Your task to perform on an android device: open app "PUBG MOBILE" (install if not already installed) Image 0: 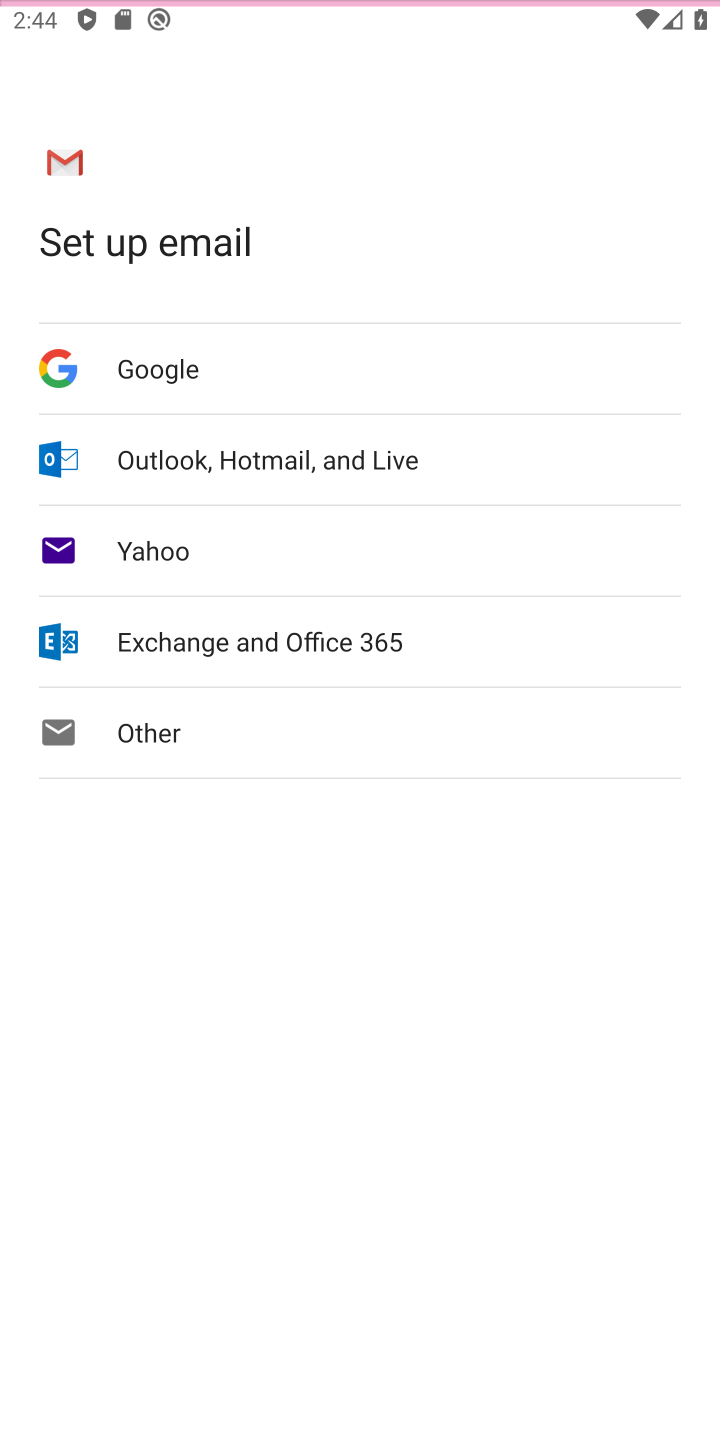
Step 0: press home button
Your task to perform on an android device: open app "PUBG MOBILE" (install if not already installed) Image 1: 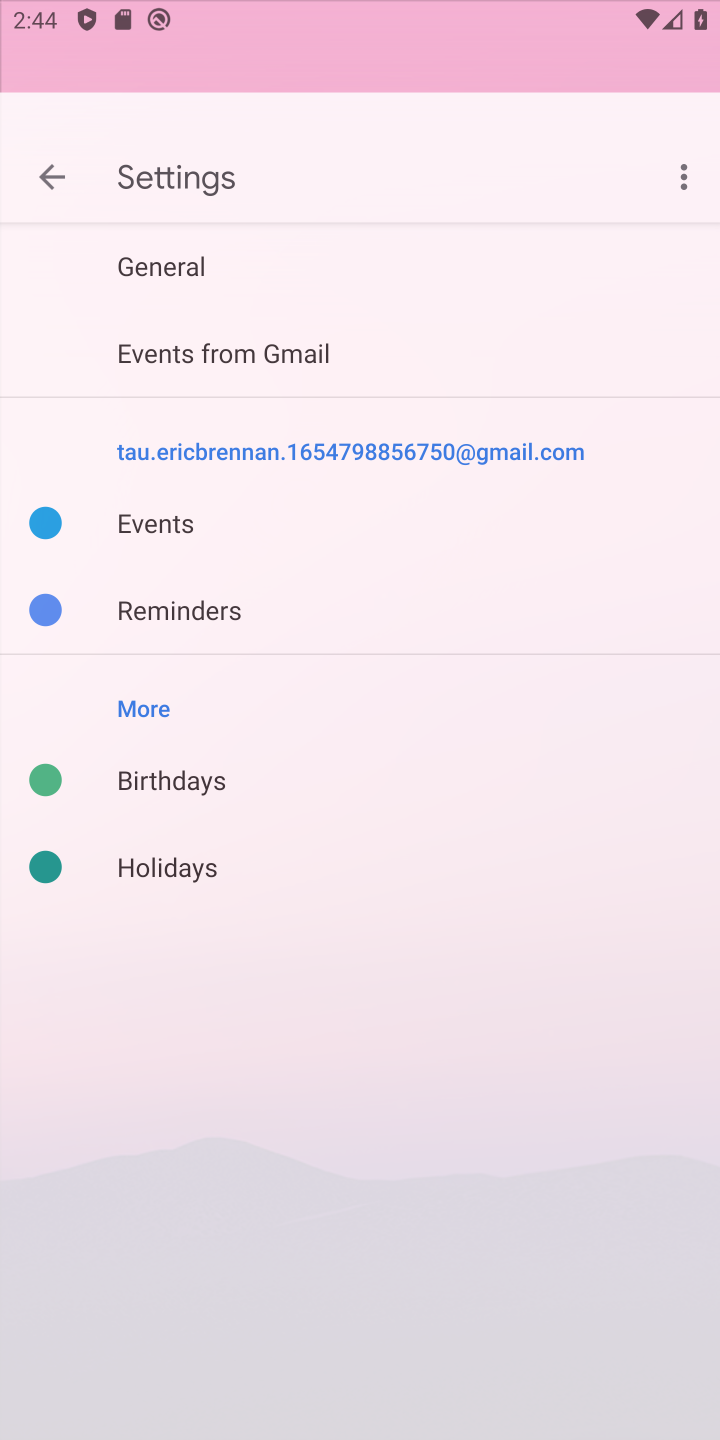
Step 1: press home button
Your task to perform on an android device: open app "PUBG MOBILE" (install if not already installed) Image 2: 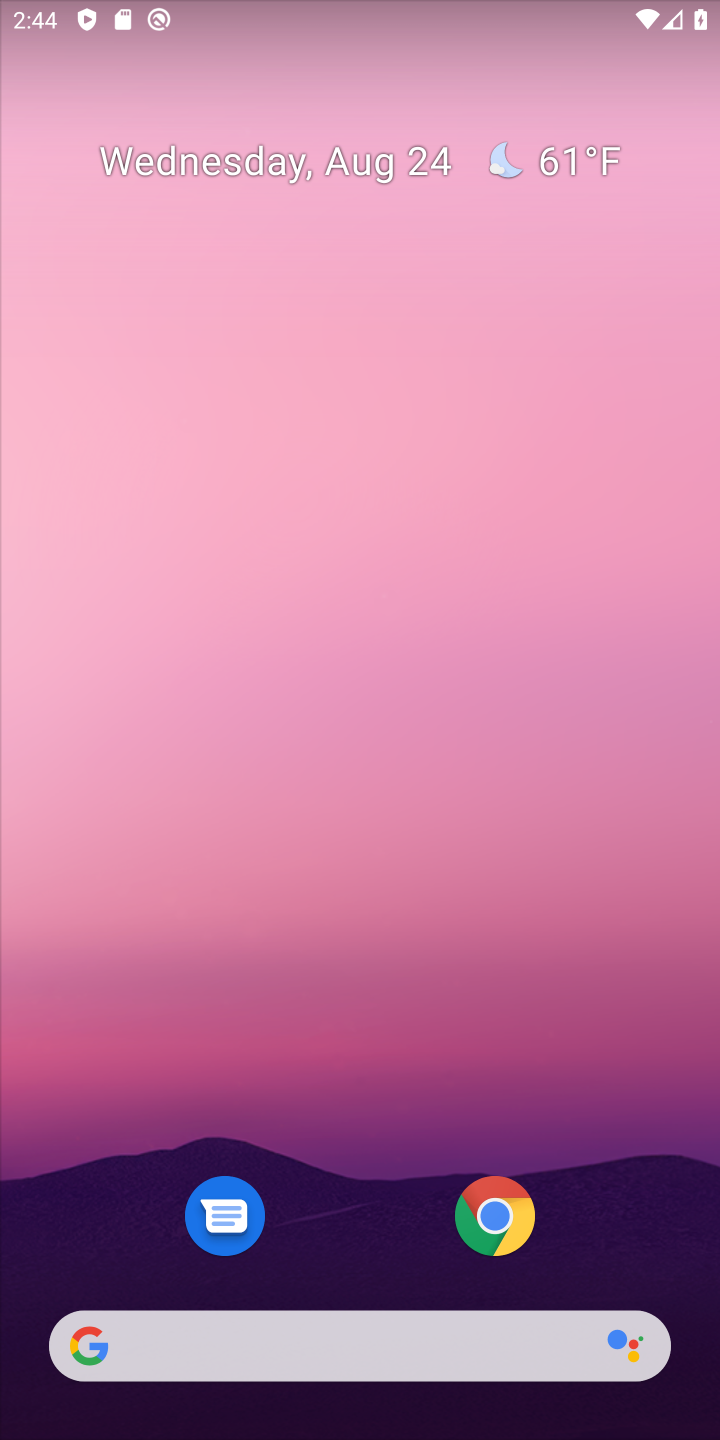
Step 2: drag from (657, 947) to (598, 69)
Your task to perform on an android device: open app "PUBG MOBILE" (install if not already installed) Image 3: 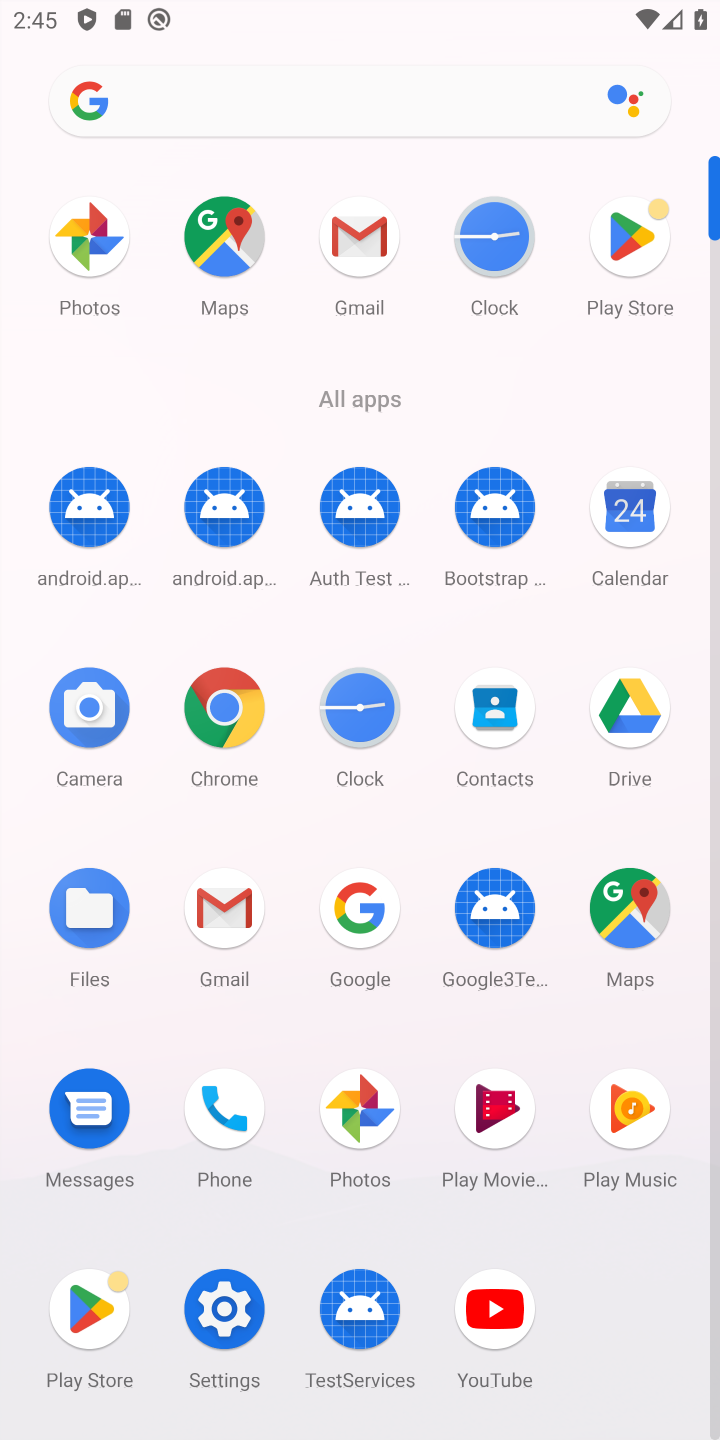
Step 3: click (623, 241)
Your task to perform on an android device: open app "PUBG MOBILE" (install if not already installed) Image 4: 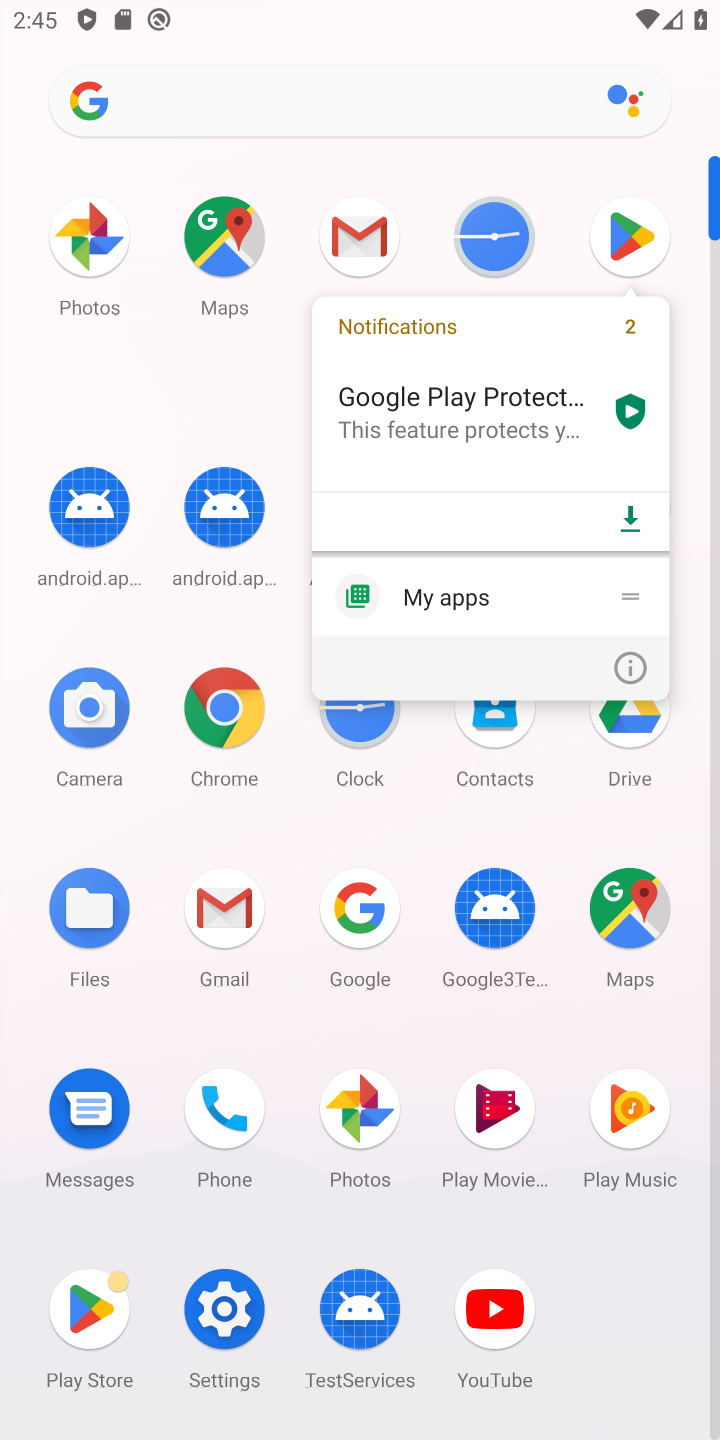
Step 4: click (604, 223)
Your task to perform on an android device: open app "PUBG MOBILE" (install if not already installed) Image 5: 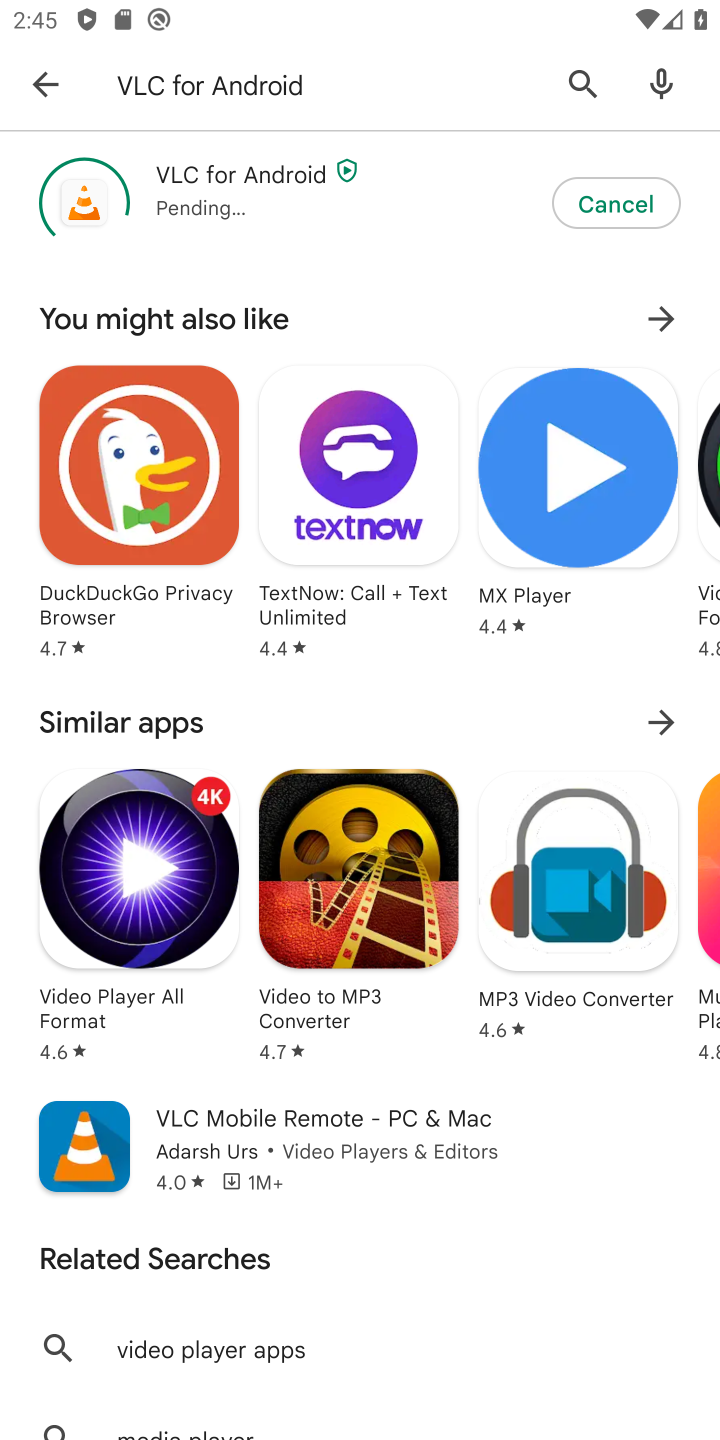
Step 5: press back button
Your task to perform on an android device: open app "PUBG MOBILE" (install if not already installed) Image 6: 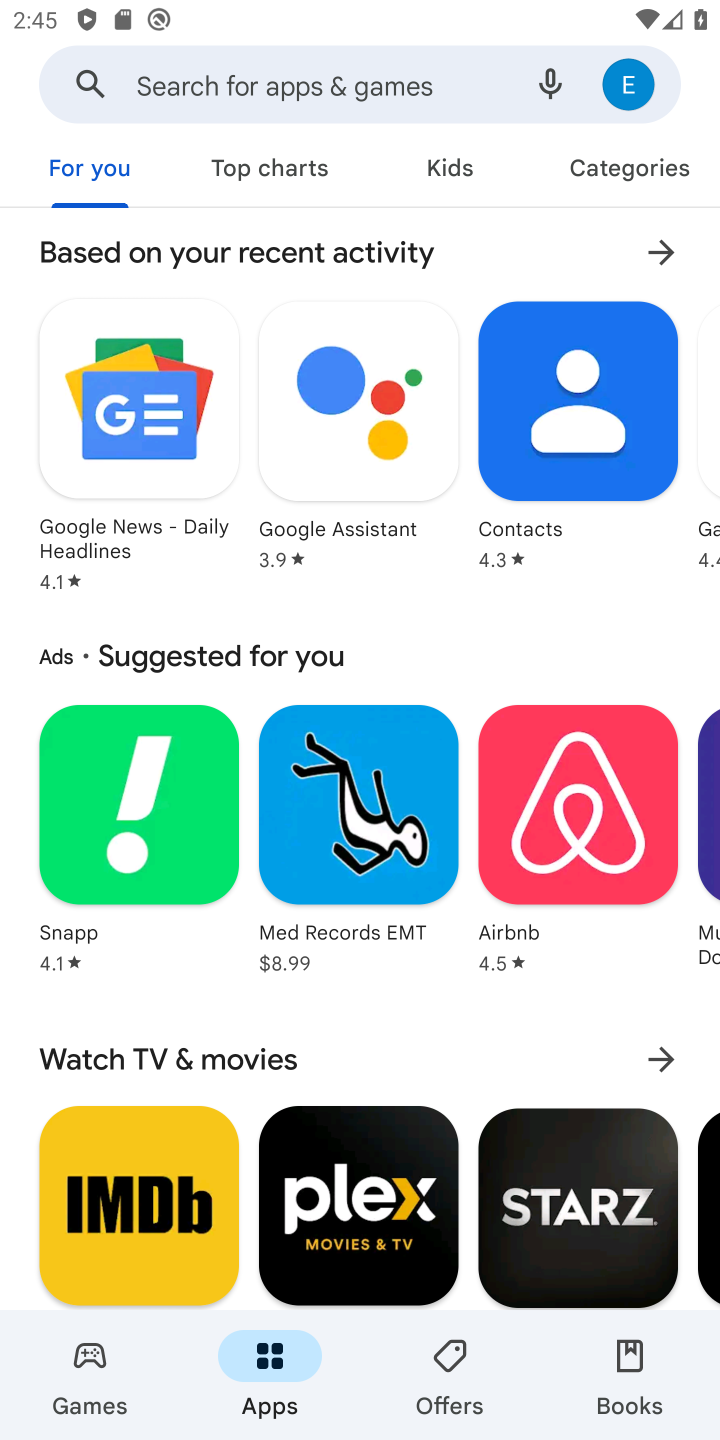
Step 6: click (356, 76)
Your task to perform on an android device: open app "PUBG MOBILE" (install if not already installed) Image 7: 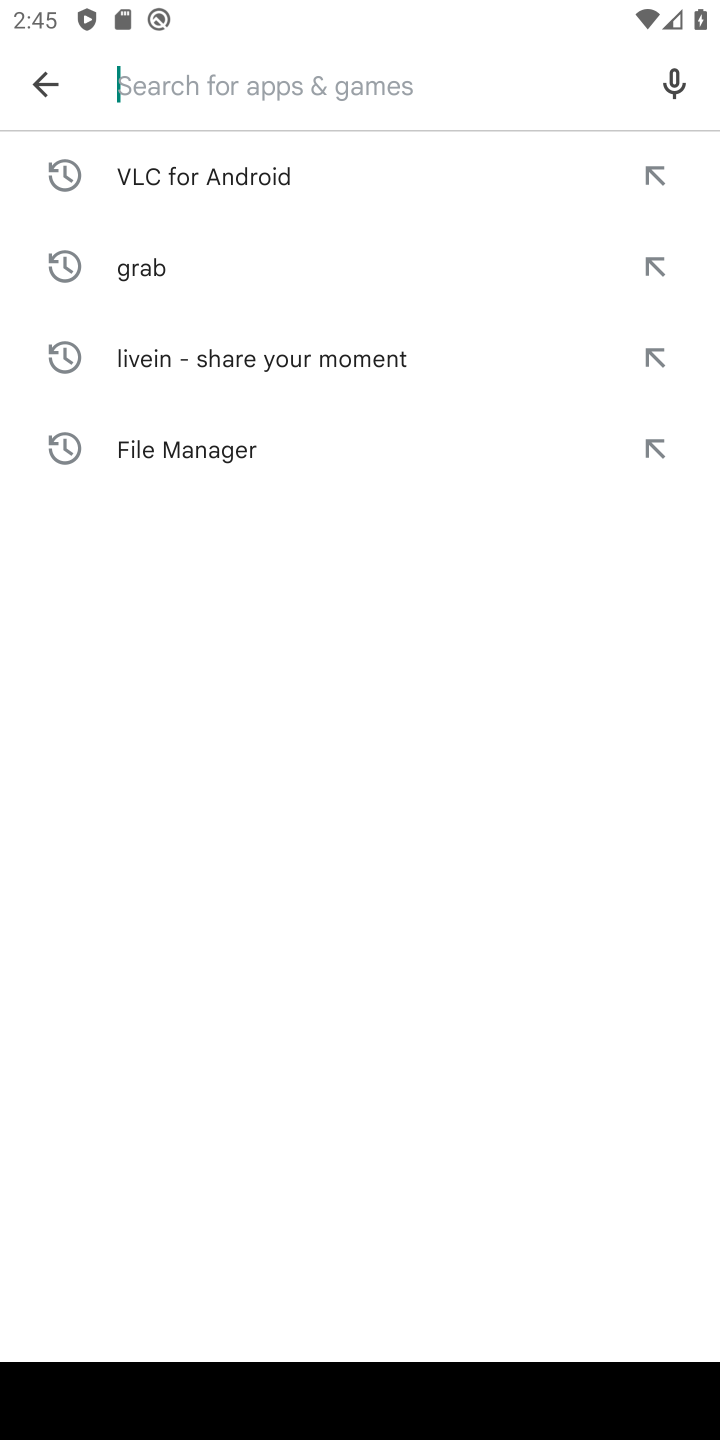
Step 7: type "PUBG MOBILE"
Your task to perform on an android device: open app "PUBG MOBILE" (install if not already installed) Image 8: 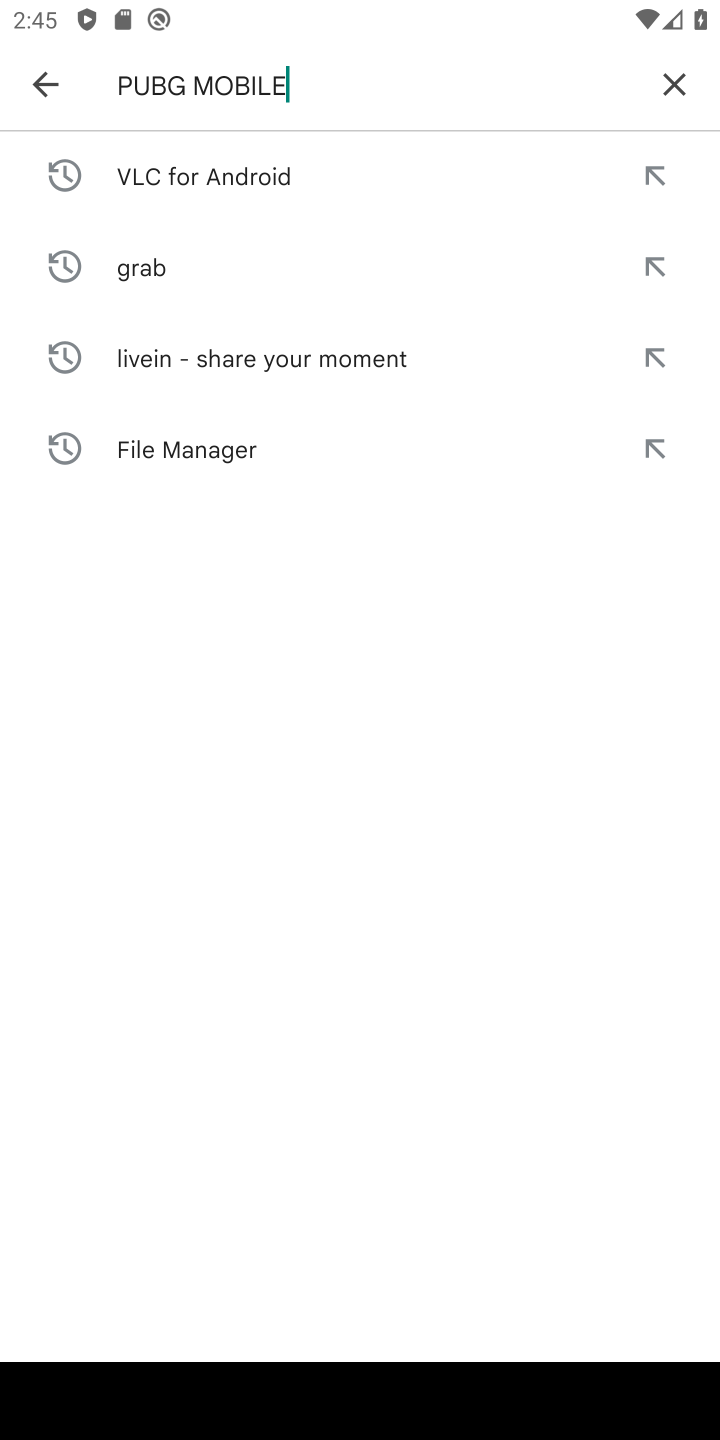
Step 8: press enter
Your task to perform on an android device: open app "PUBG MOBILE" (install if not already installed) Image 9: 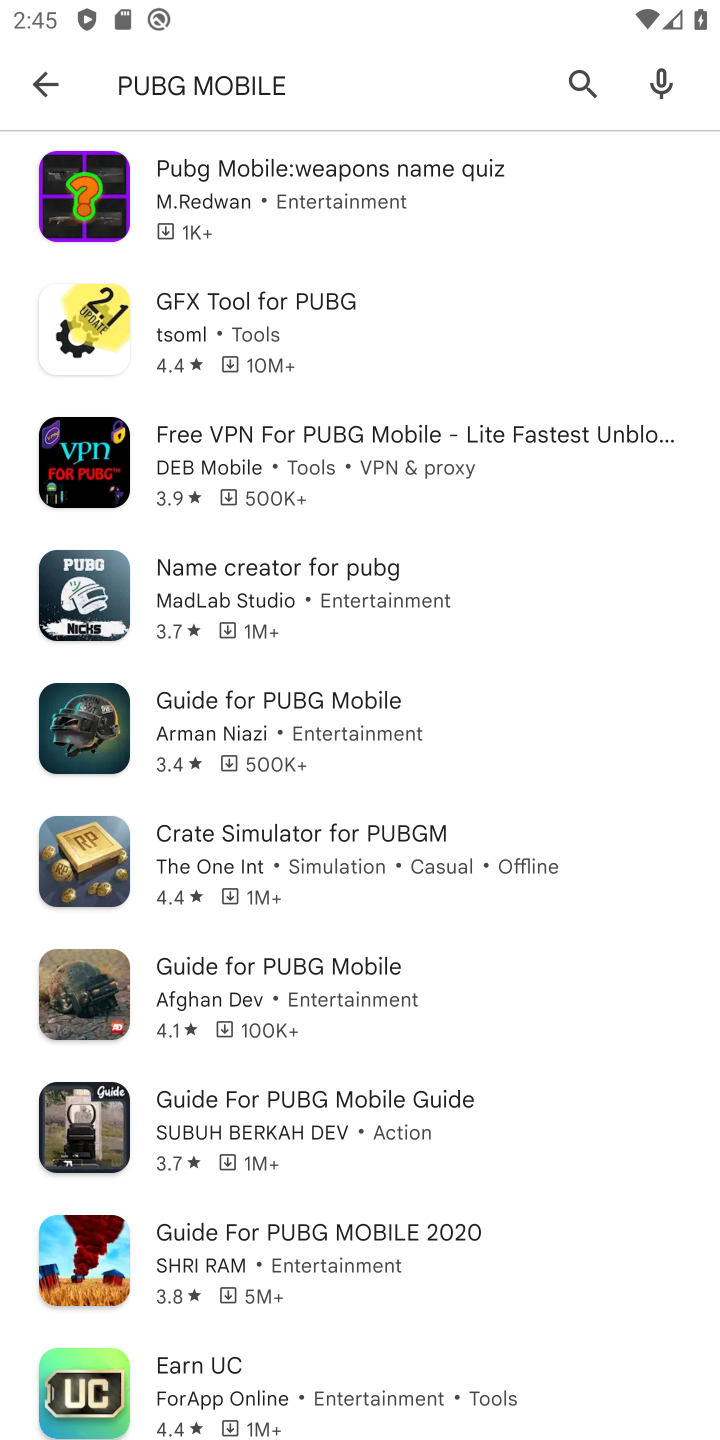
Step 9: task complete